Your task to perform on an android device: turn on notifications settings in the gmail app Image 0: 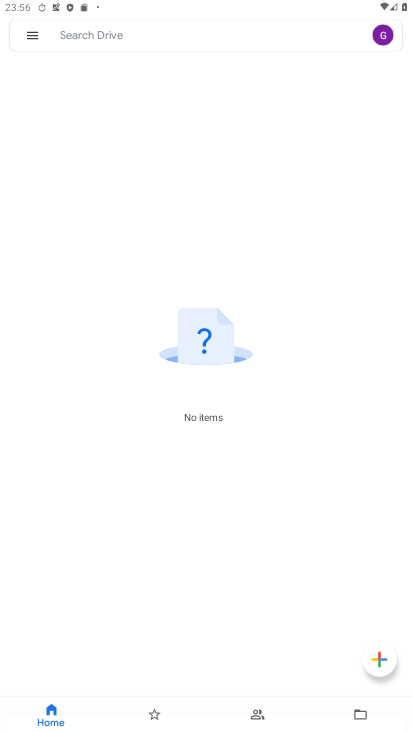
Step 0: press home button
Your task to perform on an android device: turn on notifications settings in the gmail app Image 1: 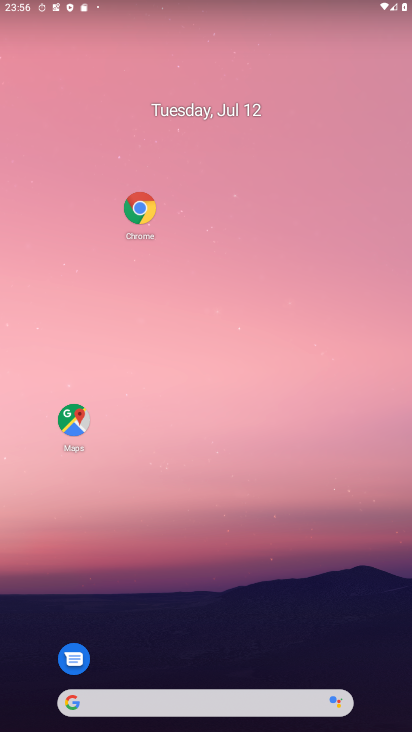
Step 1: drag from (254, 705) to (269, 215)
Your task to perform on an android device: turn on notifications settings in the gmail app Image 2: 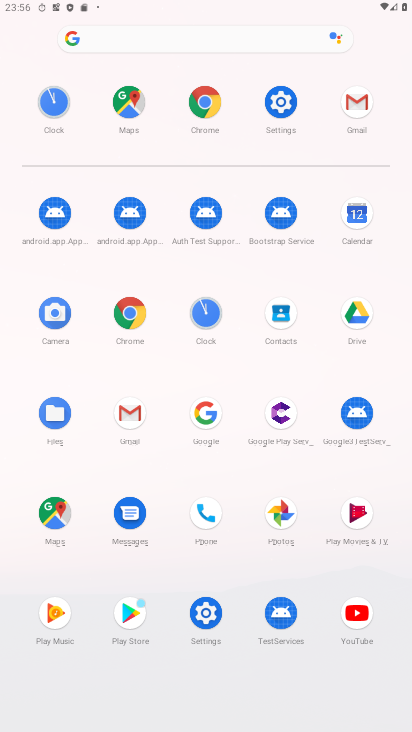
Step 2: click (121, 415)
Your task to perform on an android device: turn on notifications settings in the gmail app Image 3: 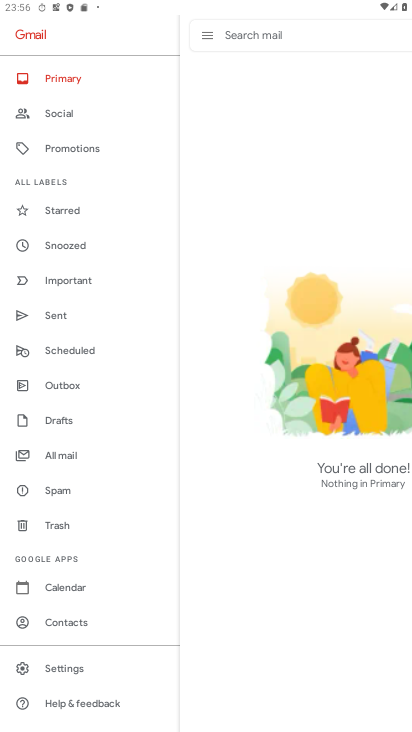
Step 3: click (84, 665)
Your task to perform on an android device: turn on notifications settings in the gmail app Image 4: 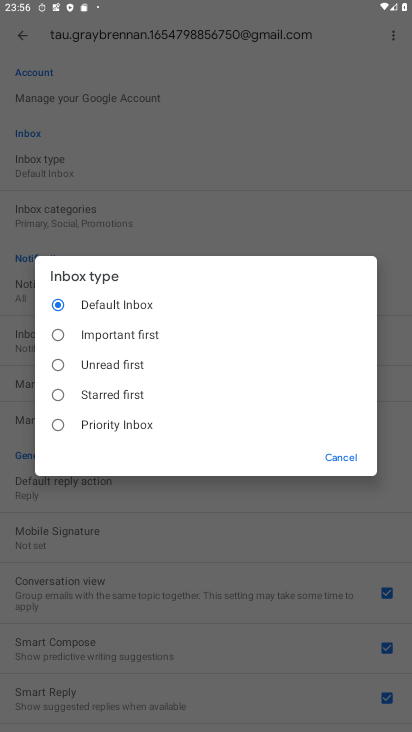
Step 4: click (339, 450)
Your task to perform on an android device: turn on notifications settings in the gmail app Image 5: 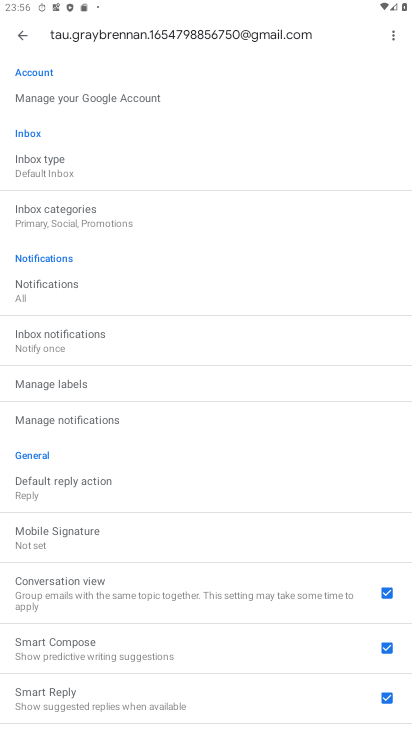
Step 5: click (71, 419)
Your task to perform on an android device: turn on notifications settings in the gmail app Image 6: 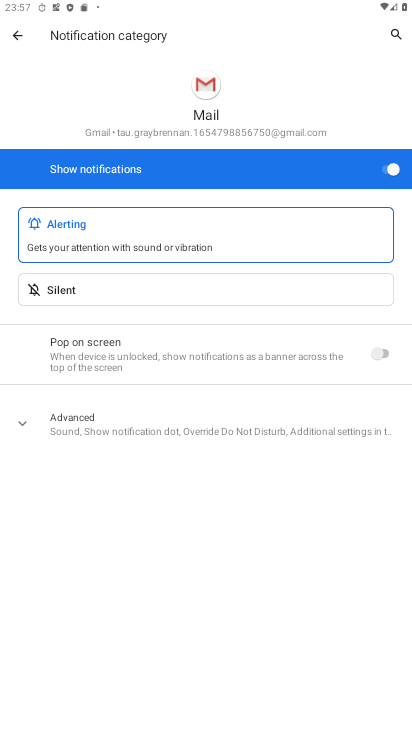
Step 6: task complete